Your task to perform on an android device: Check the weather Image 0: 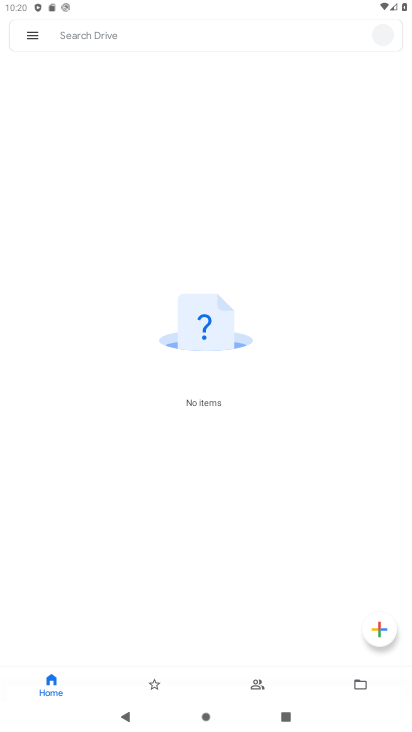
Step 0: press home button
Your task to perform on an android device: Check the weather Image 1: 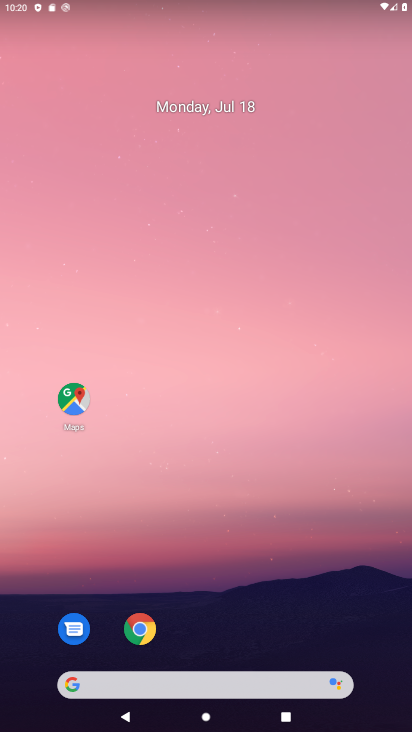
Step 1: task complete